Your task to perform on an android device: open chrome privacy settings Image 0: 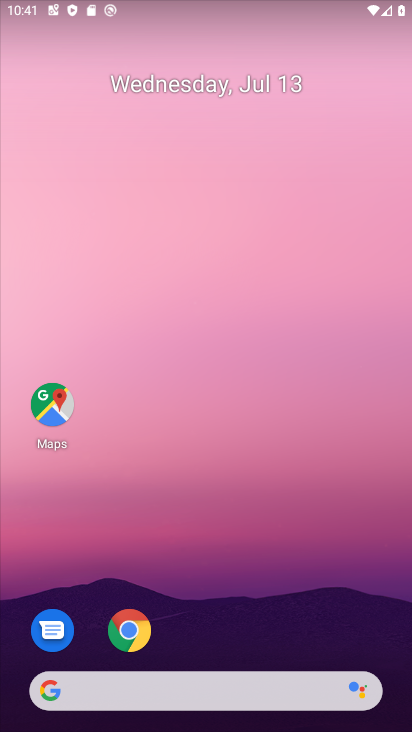
Step 0: drag from (260, 525) to (292, 5)
Your task to perform on an android device: open chrome privacy settings Image 1: 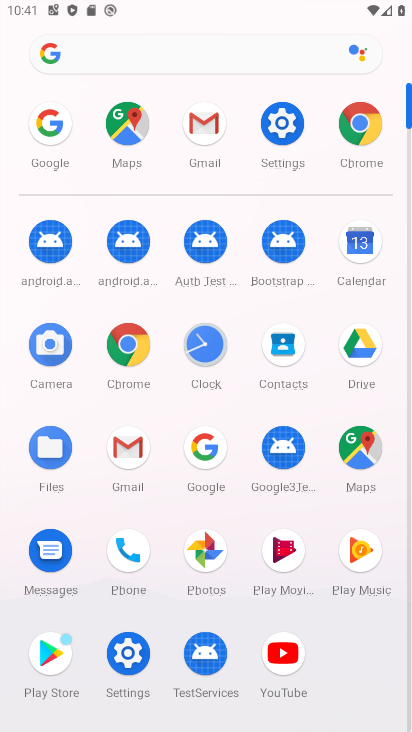
Step 1: click (364, 142)
Your task to perform on an android device: open chrome privacy settings Image 2: 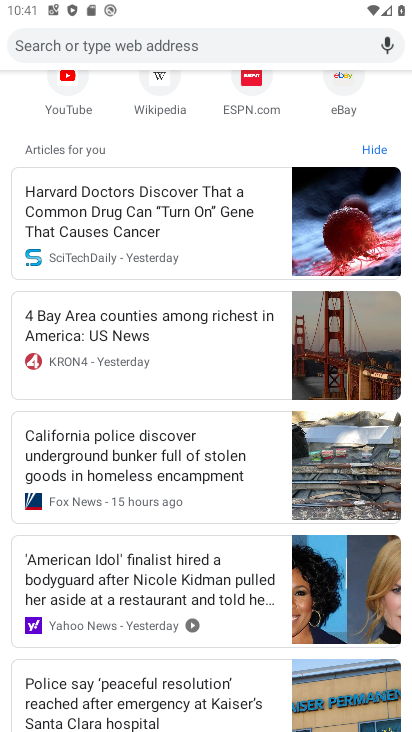
Step 2: drag from (157, 241) to (241, 559)
Your task to perform on an android device: open chrome privacy settings Image 3: 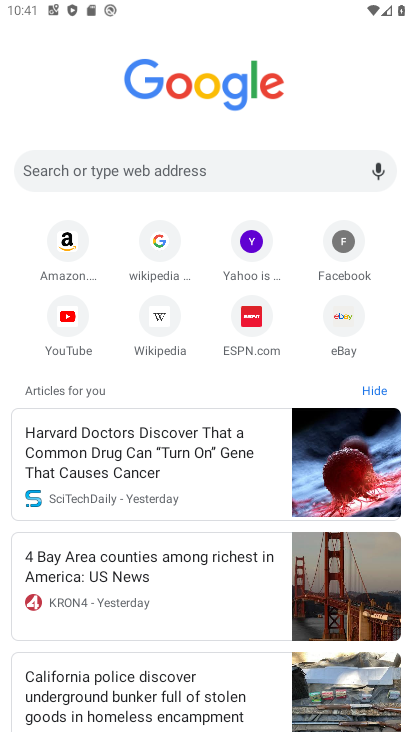
Step 3: drag from (279, 199) to (328, 536)
Your task to perform on an android device: open chrome privacy settings Image 4: 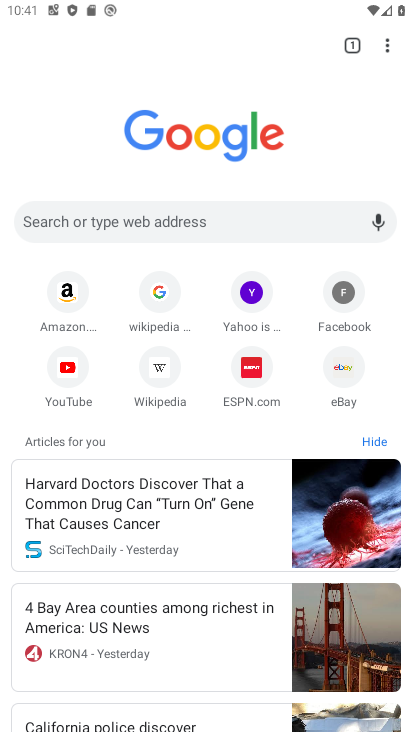
Step 4: drag from (393, 46) to (216, 393)
Your task to perform on an android device: open chrome privacy settings Image 5: 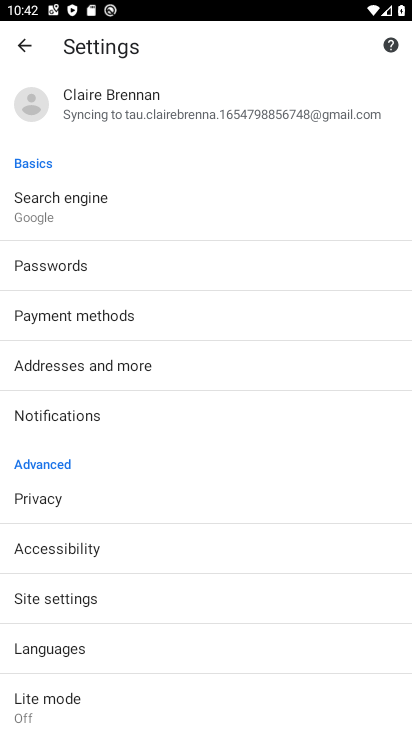
Step 5: click (113, 477)
Your task to perform on an android device: open chrome privacy settings Image 6: 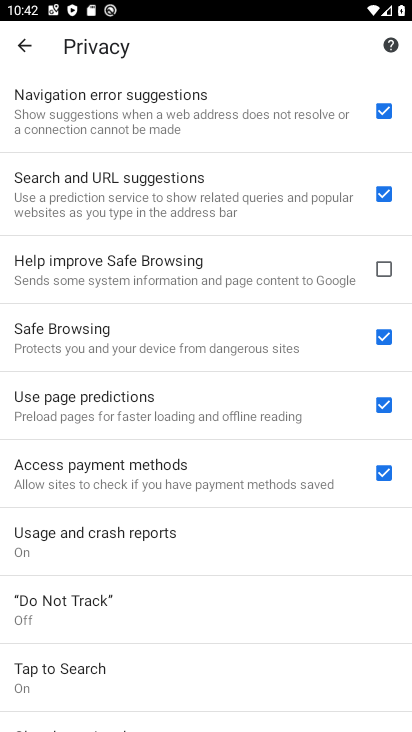
Step 6: task complete